Your task to perform on an android device: snooze an email in the gmail app Image 0: 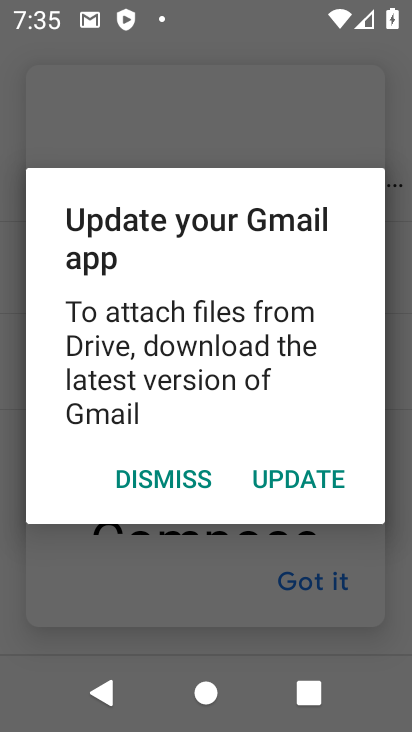
Step 0: press home button
Your task to perform on an android device: snooze an email in the gmail app Image 1: 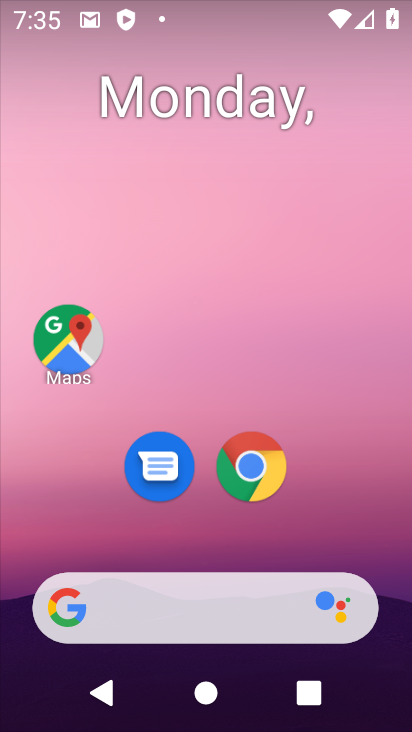
Step 1: drag from (354, 540) to (233, 32)
Your task to perform on an android device: snooze an email in the gmail app Image 2: 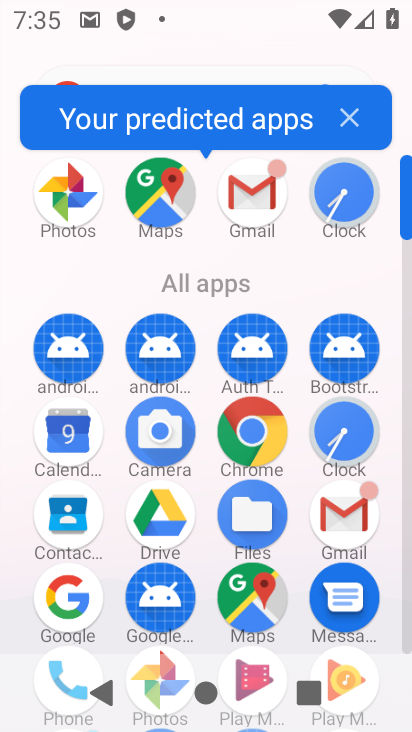
Step 2: click (252, 183)
Your task to perform on an android device: snooze an email in the gmail app Image 3: 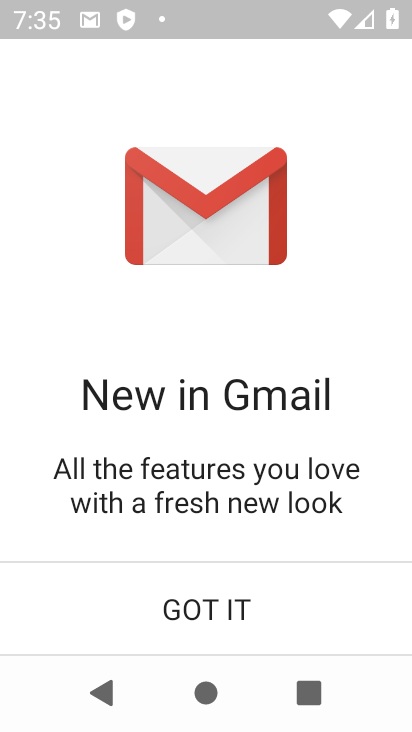
Step 3: click (225, 632)
Your task to perform on an android device: snooze an email in the gmail app Image 4: 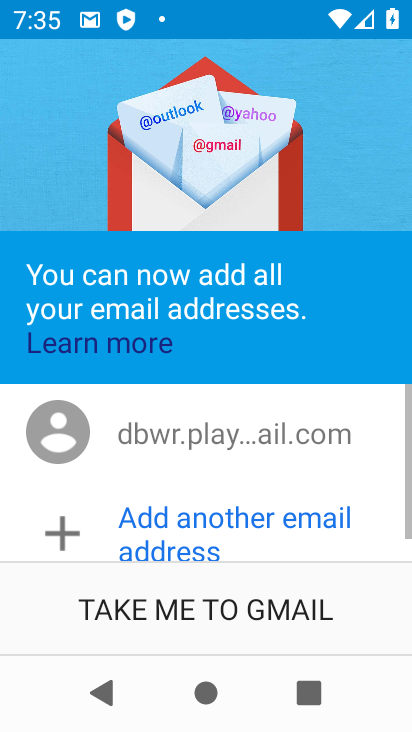
Step 4: click (226, 624)
Your task to perform on an android device: snooze an email in the gmail app Image 5: 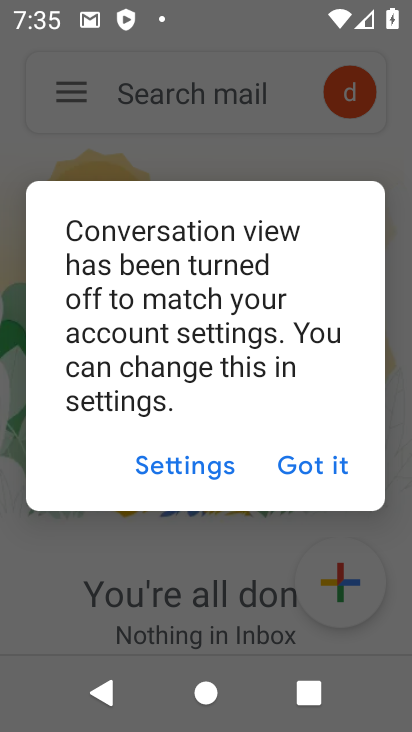
Step 5: click (330, 458)
Your task to perform on an android device: snooze an email in the gmail app Image 6: 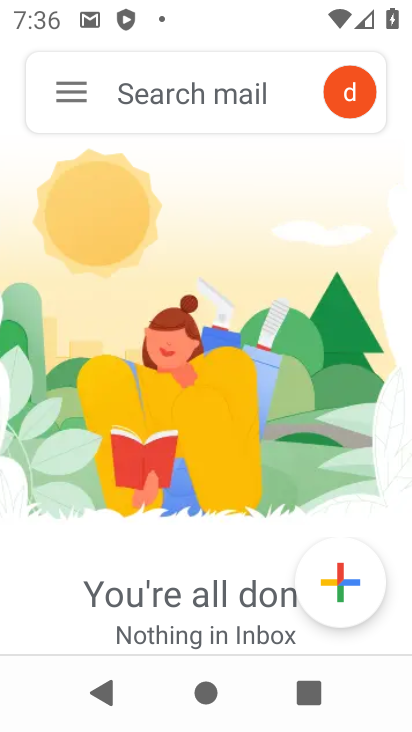
Step 6: click (52, 85)
Your task to perform on an android device: snooze an email in the gmail app Image 7: 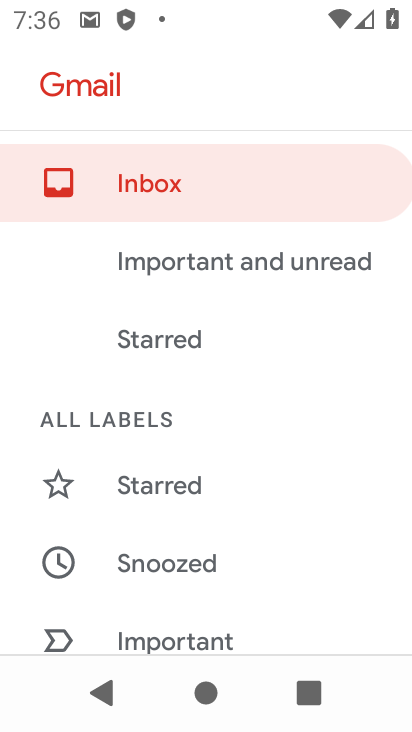
Step 7: drag from (253, 542) to (305, 158)
Your task to perform on an android device: snooze an email in the gmail app Image 8: 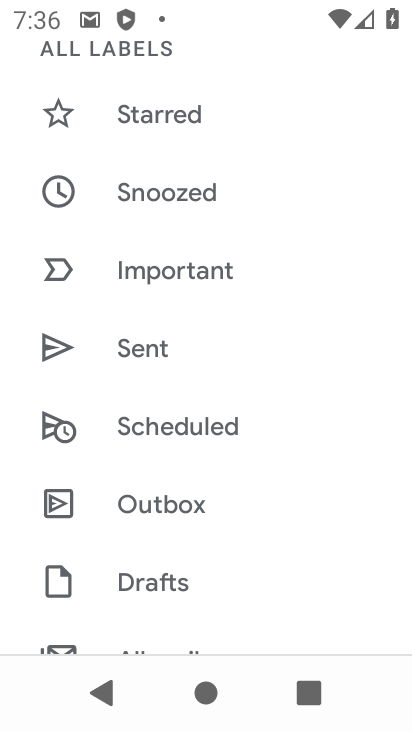
Step 8: drag from (264, 381) to (295, 152)
Your task to perform on an android device: snooze an email in the gmail app Image 9: 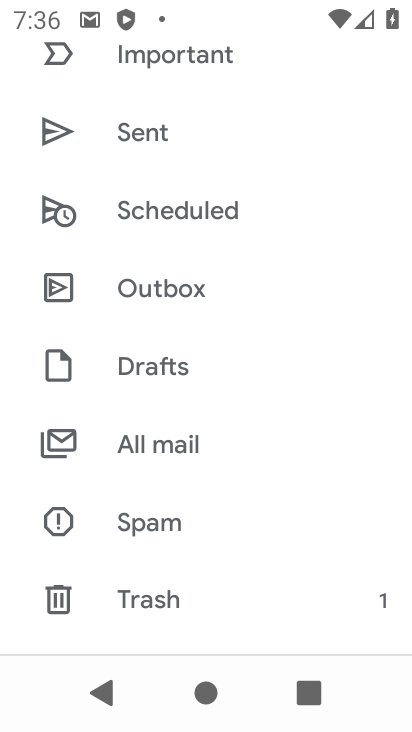
Step 9: click (131, 450)
Your task to perform on an android device: snooze an email in the gmail app Image 10: 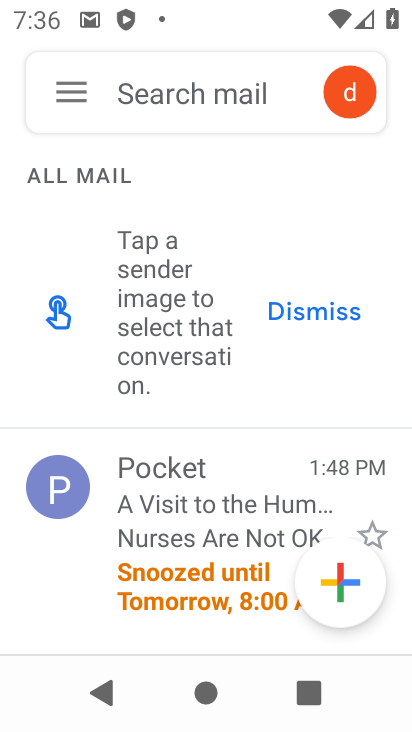
Step 10: click (168, 546)
Your task to perform on an android device: snooze an email in the gmail app Image 11: 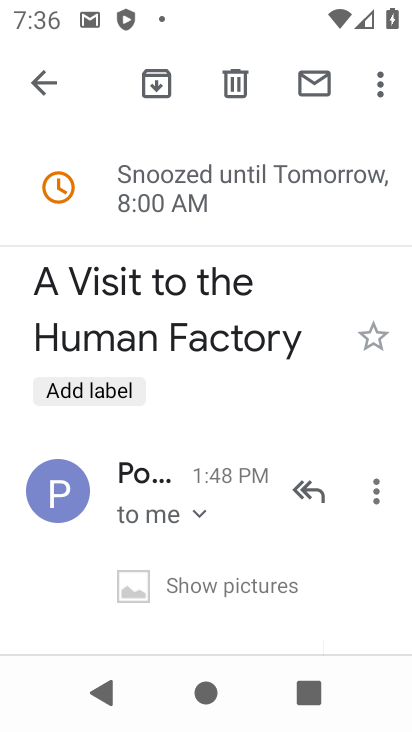
Step 11: click (370, 76)
Your task to perform on an android device: snooze an email in the gmail app Image 12: 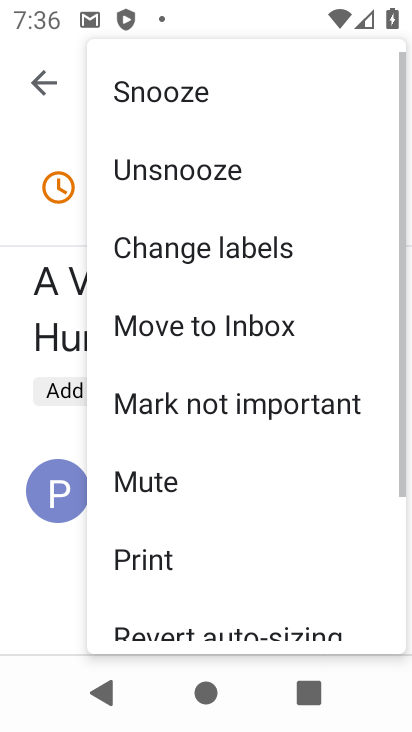
Step 12: click (217, 98)
Your task to perform on an android device: snooze an email in the gmail app Image 13: 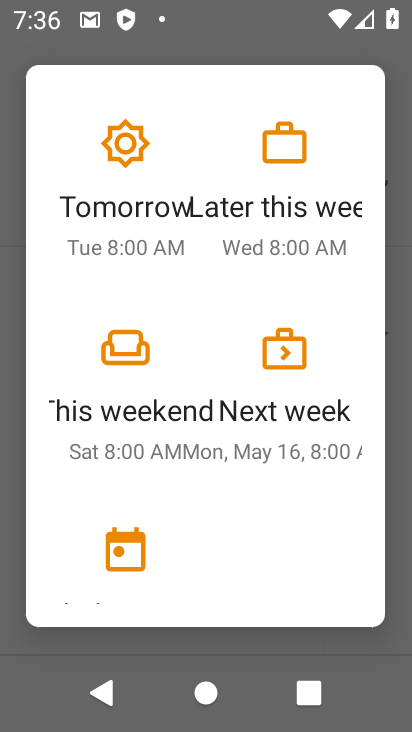
Step 13: click (159, 190)
Your task to perform on an android device: snooze an email in the gmail app Image 14: 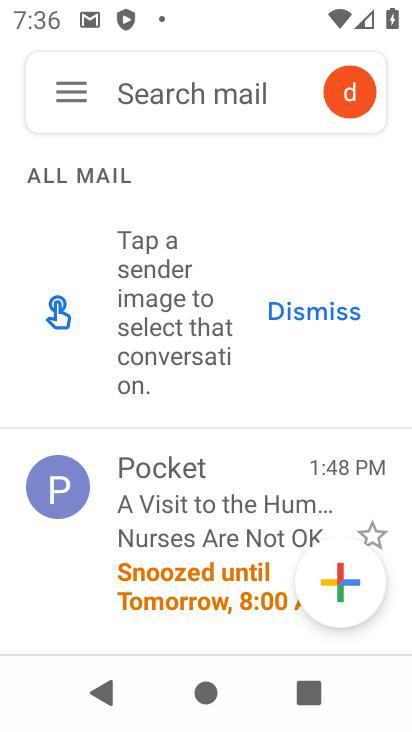
Step 14: task complete